Your task to perform on an android device: Open Yahoo.com Image 0: 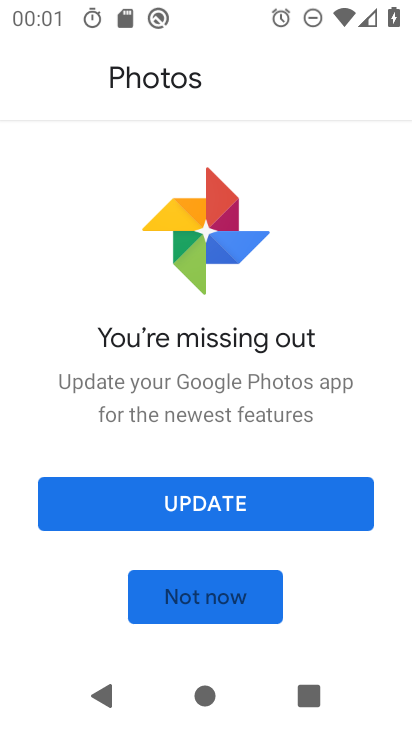
Step 0: press home button
Your task to perform on an android device: Open Yahoo.com Image 1: 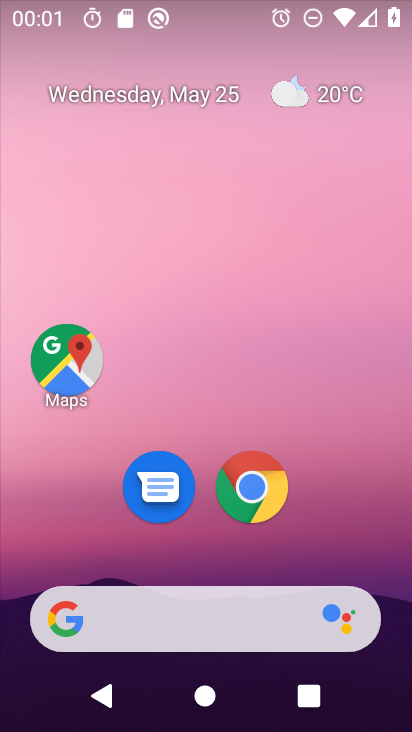
Step 1: click (256, 486)
Your task to perform on an android device: Open Yahoo.com Image 2: 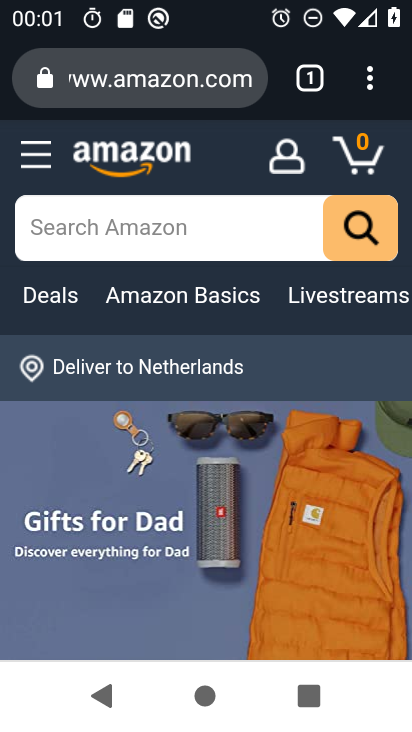
Step 2: click (127, 92)
Your task to perform on an android device: Open Yahoo.com Image 3: 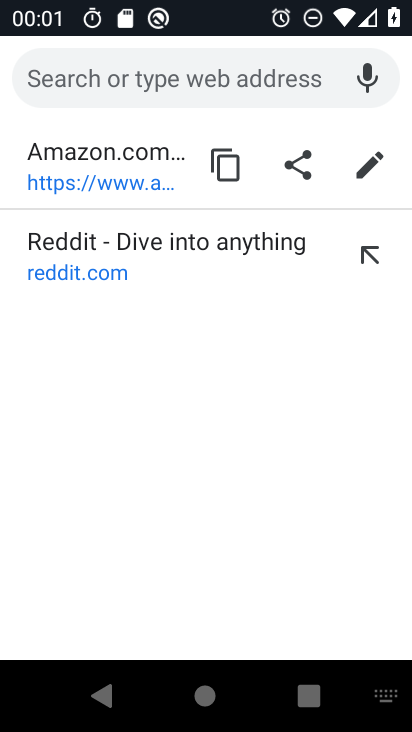
Step 3: type "yahoo.com"
Your task to perform on an android device: Open Yahoo.com Image 4: 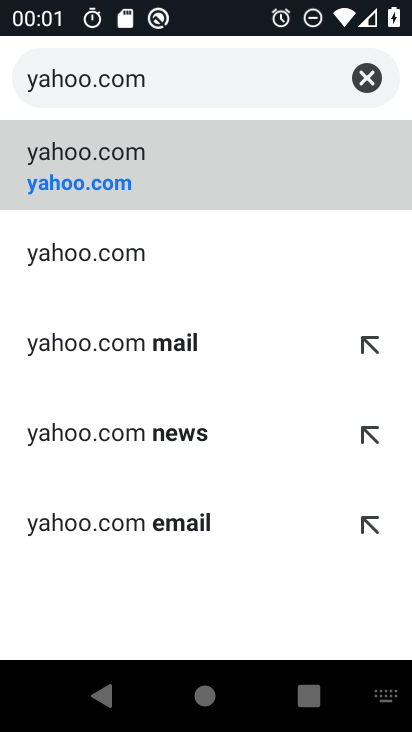
Step 4: click (79, 187)
Your task to perform on an android device: Open Yahoo.com Image 5: 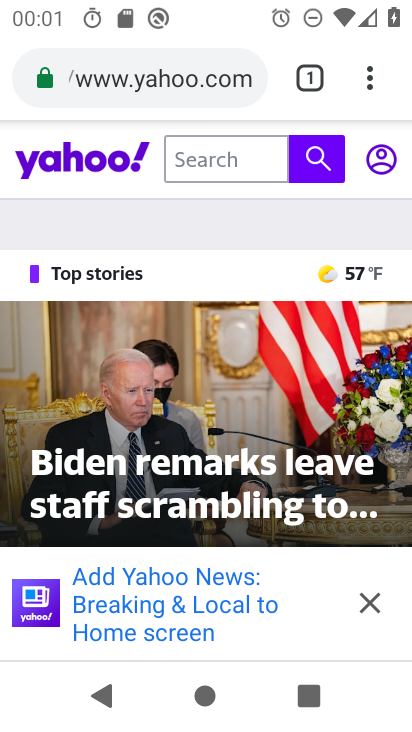
Step 5: task complete